Your task to perform on an android device: What's the weather going to be this weekend? Image 0: 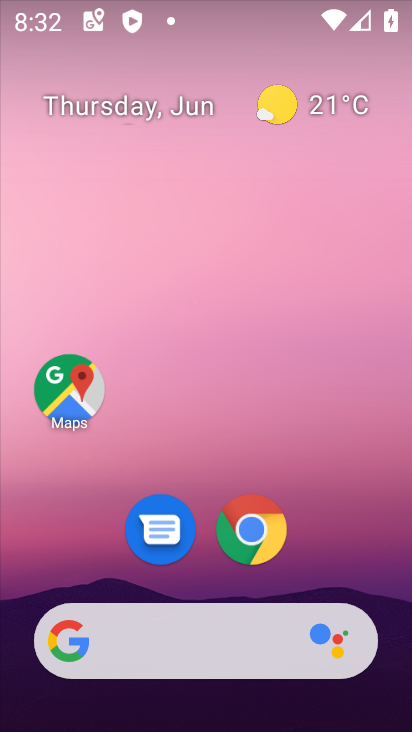
Step 0: click (223, 617)
Your task to perform on an android device: What's the weather going to be this weekend? Image 1: 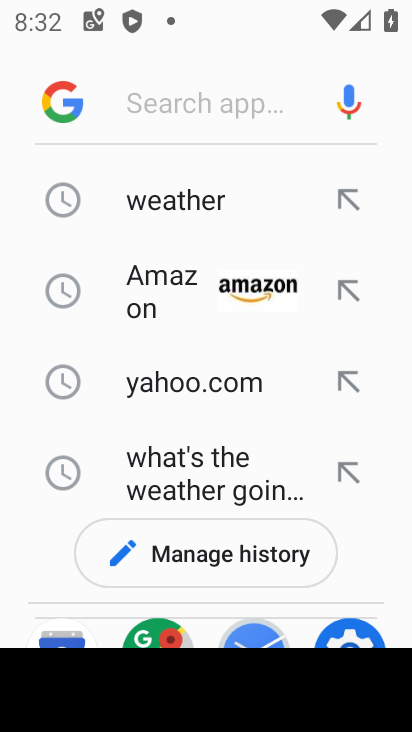
Step 1: click (178, 194)
Your task to perform on an android device: What's the weather going to be this weekend? Image 2: 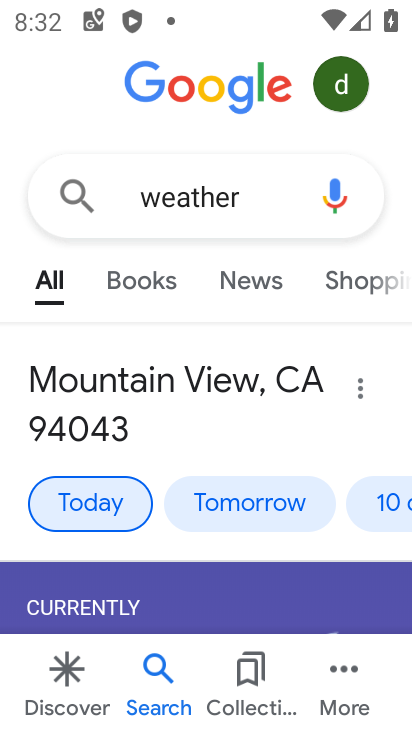
Step 2: click (378, 501)
Your task to perform on an android device: What's the weather going to be this weekend? Image 3: 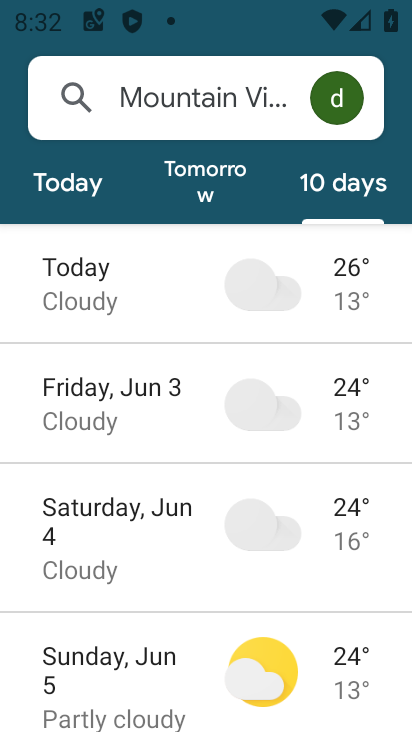
Step 3: task complete